Your task to perform on an android device: show emergency info Image 0: 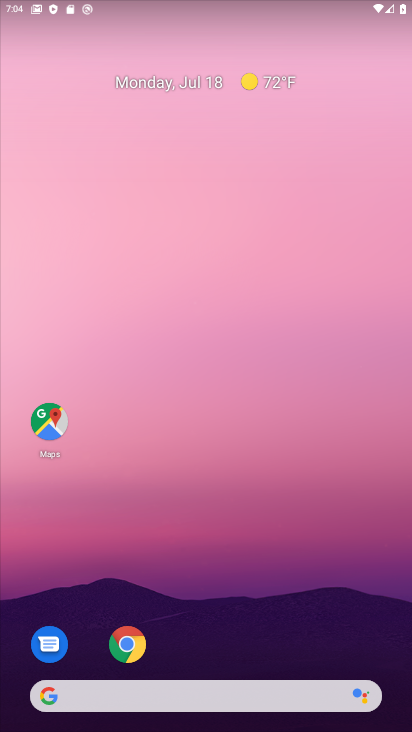
Step 0: drag from (300, 609) to (241, 63)
Your task to perform on an android device: show emergency info Image 1: 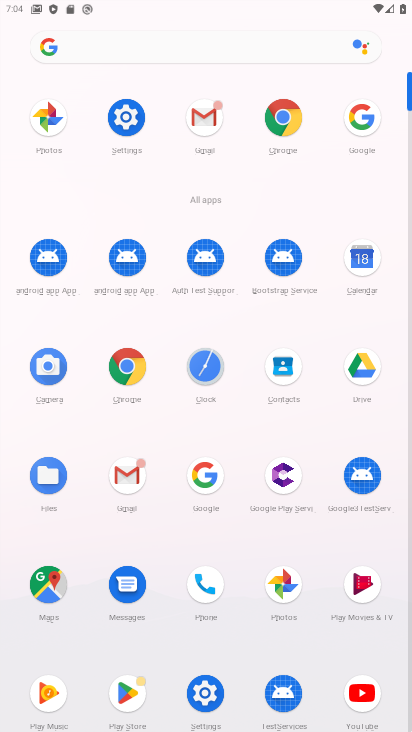
Step 1: click (210, 708)
Your task to perform on an android device: show emergency info Image 2: 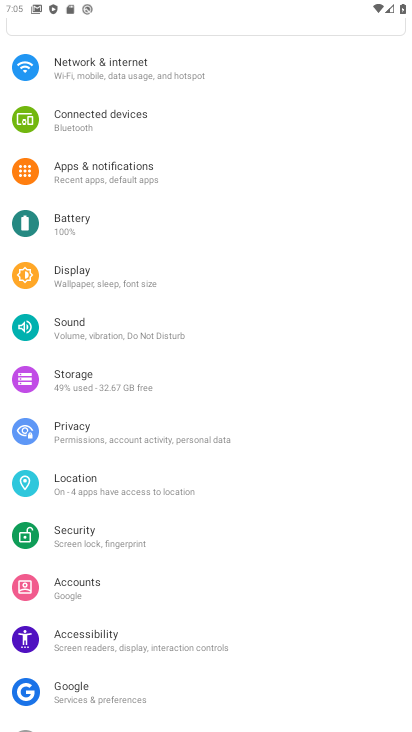
Step 2: drag from (109, 671) to (161, 19)
Your task to perform on an android device: show emergency info Image 3: 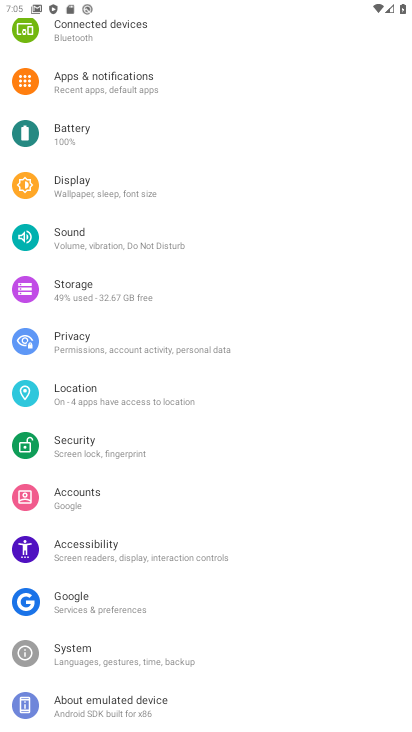
Step 3: click (121, 703)
Your task to perform on an android device: show emergency info Image 4: 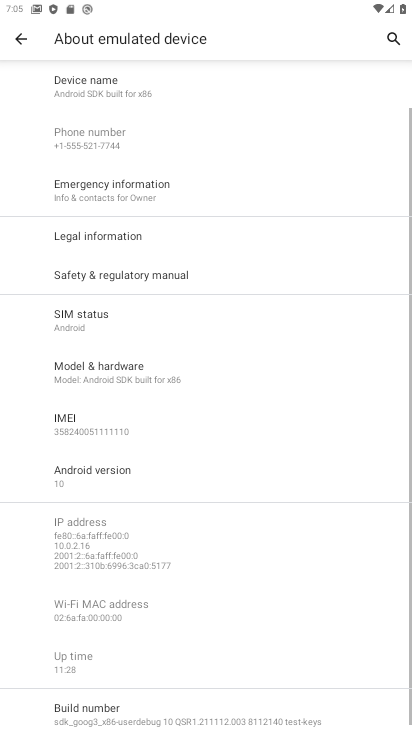
Step 4: click (133, 204)
Your task to perform on an android device: show emergency info Image 5: 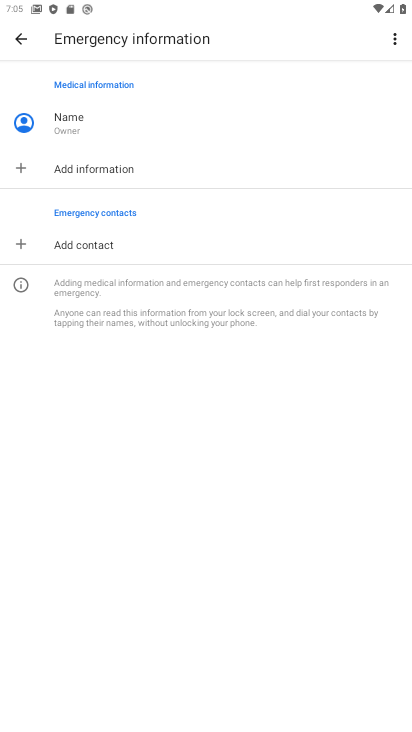
Step 5: task complete